Your task to perform on an android device: When is my next meeting? Image 0: 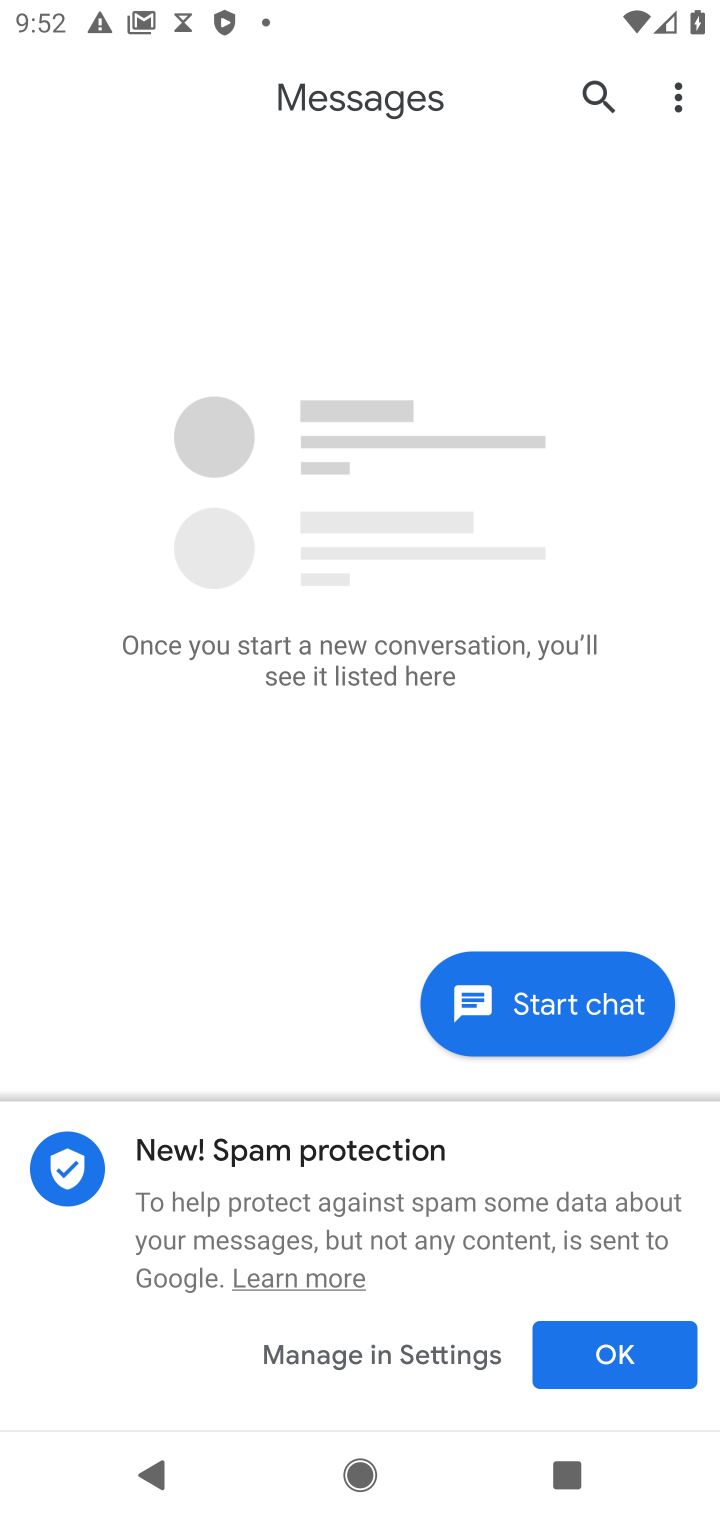
Step 0: press home button
Your task to perform on an android device: When is my next meeting? Image 1: 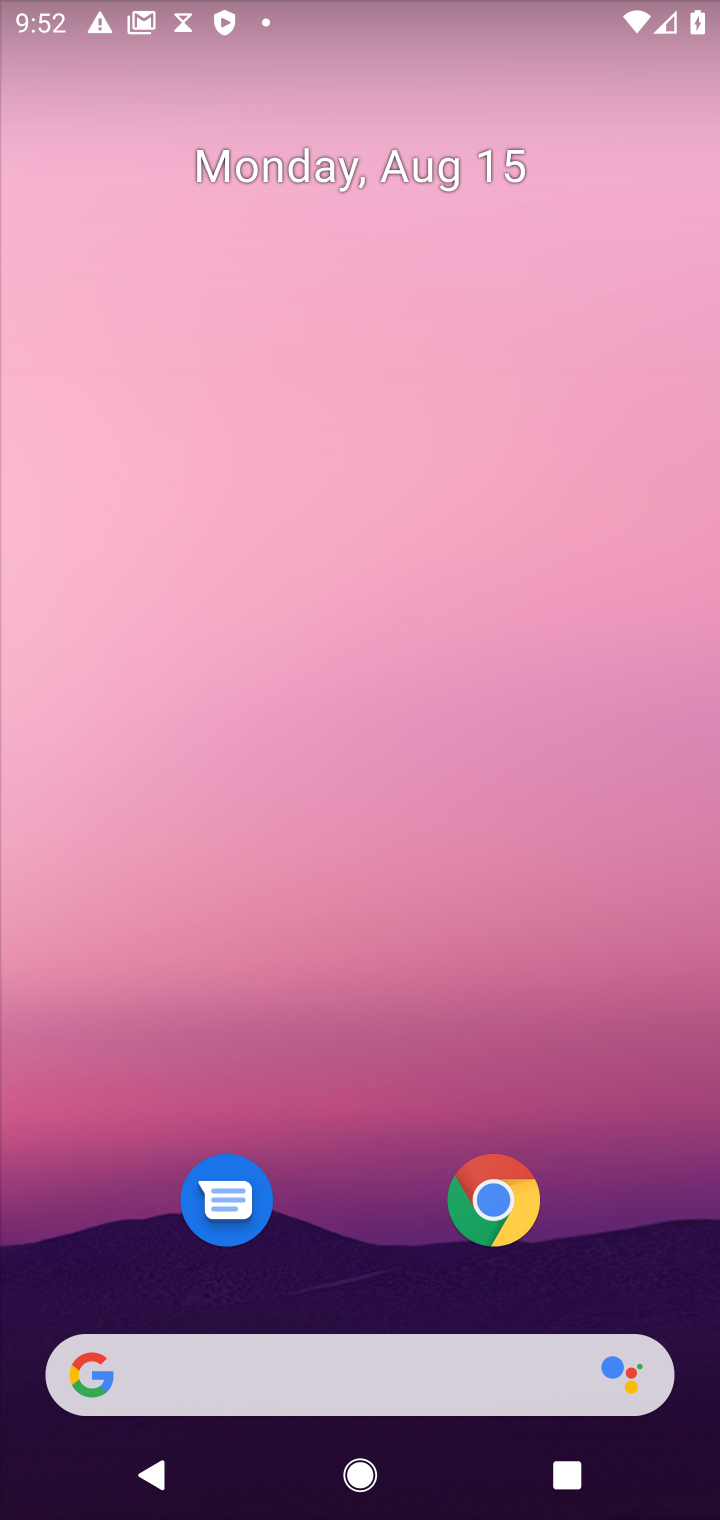
Step 1: drag from (314, 1025) to (296, 369)
Your task to perform on an android device: When is my next meeting? Image 2: 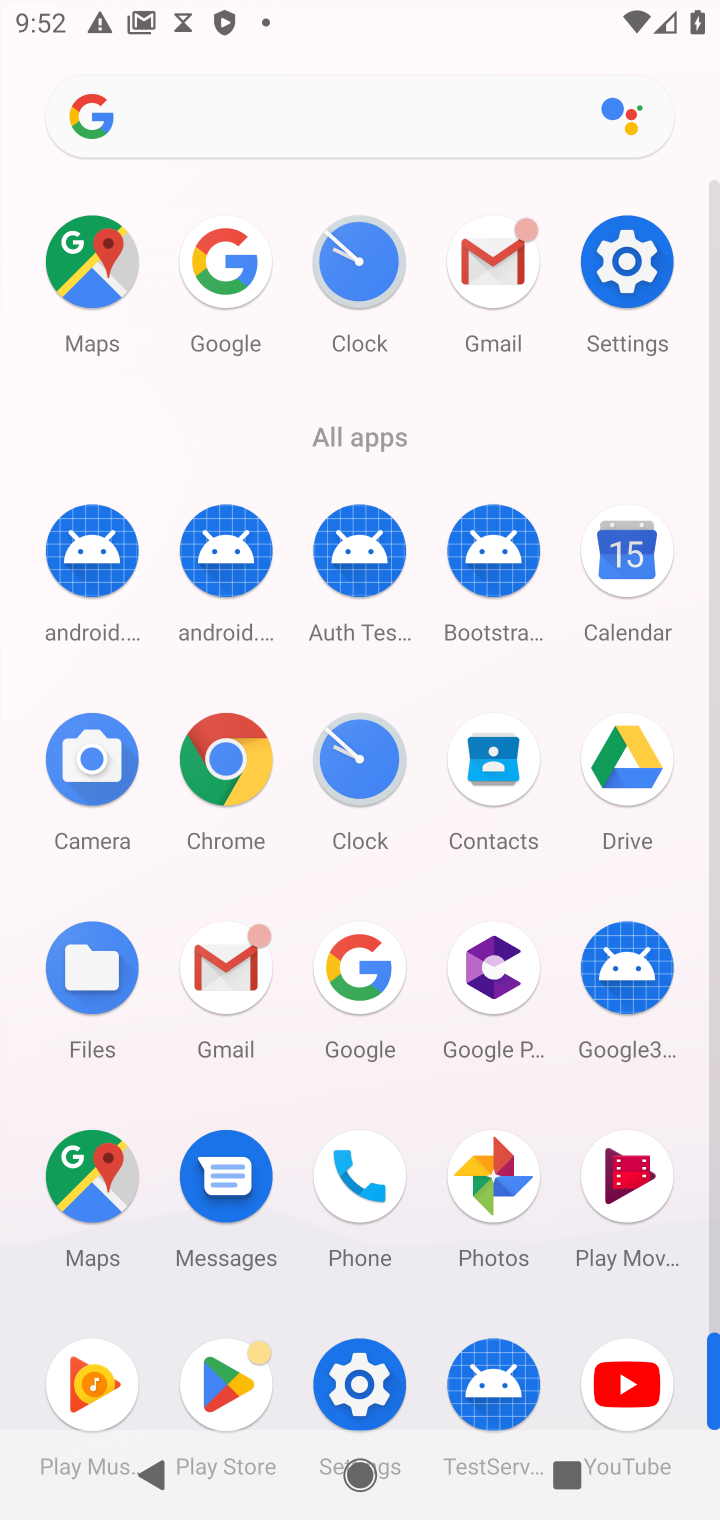
Step 2: click (606, 578)
Your task to perform on an android device: When is my next meeting? Image 3: 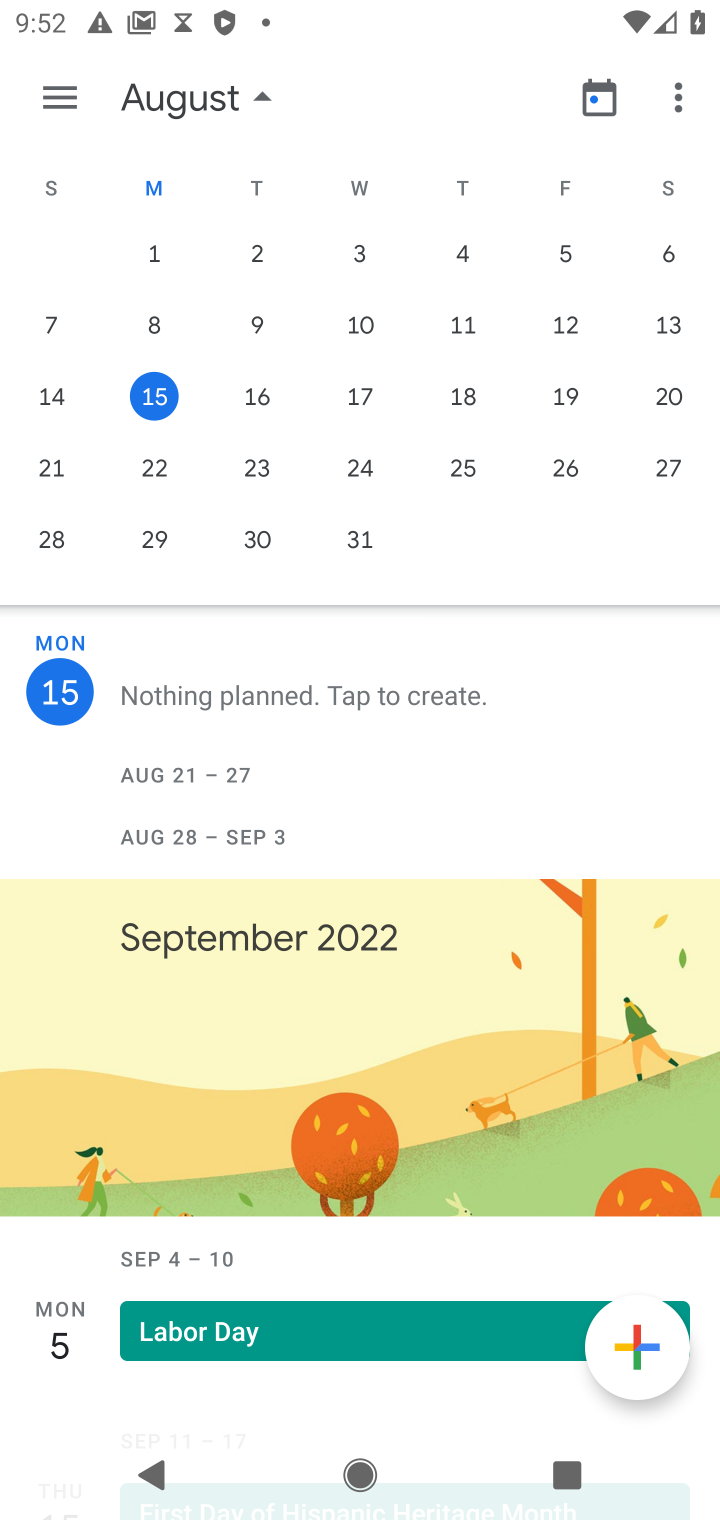
Step 3: click (275, 399)
Your task to perform on an android device: When is my next meeting? Image 4: 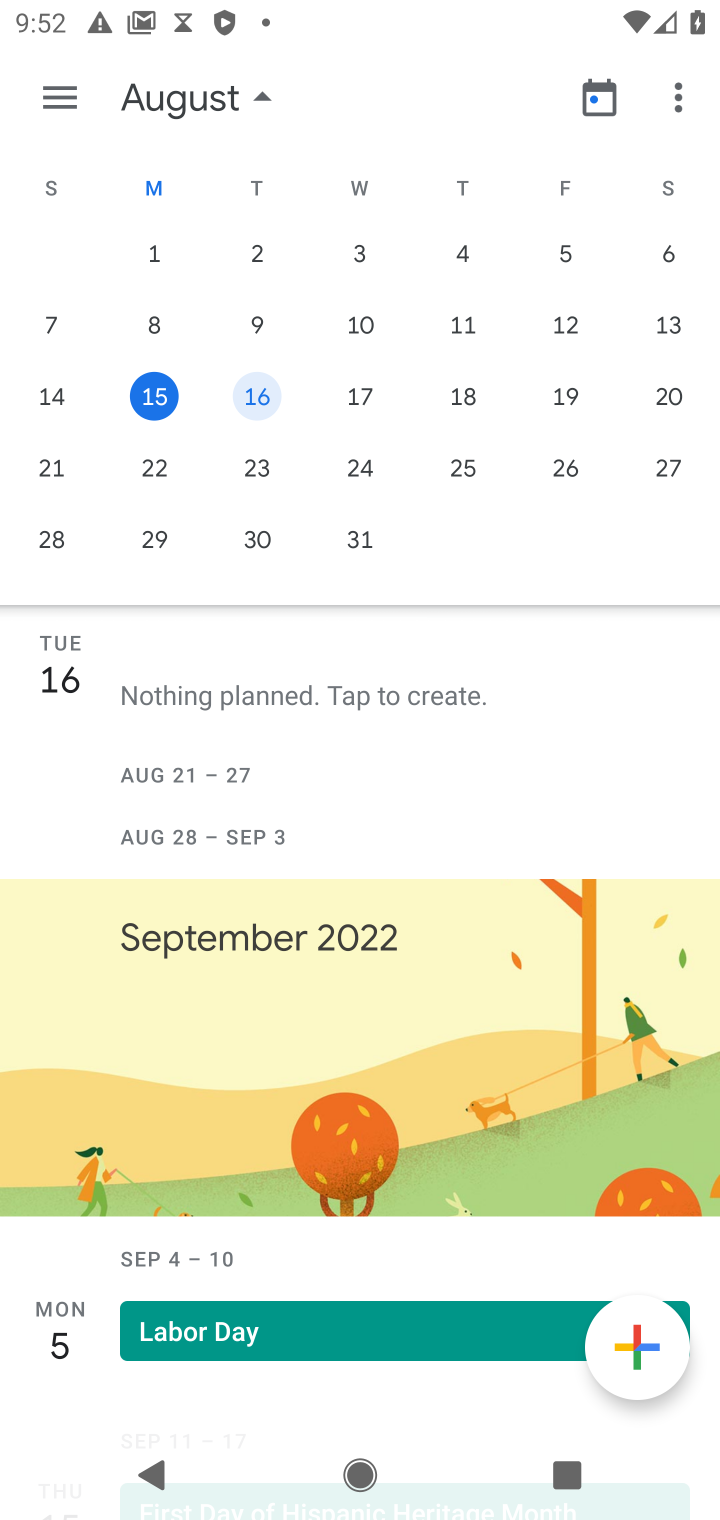
Step 4: click (335, 399)
Your task to perform on an android device: When is my next meeting? Image 5: 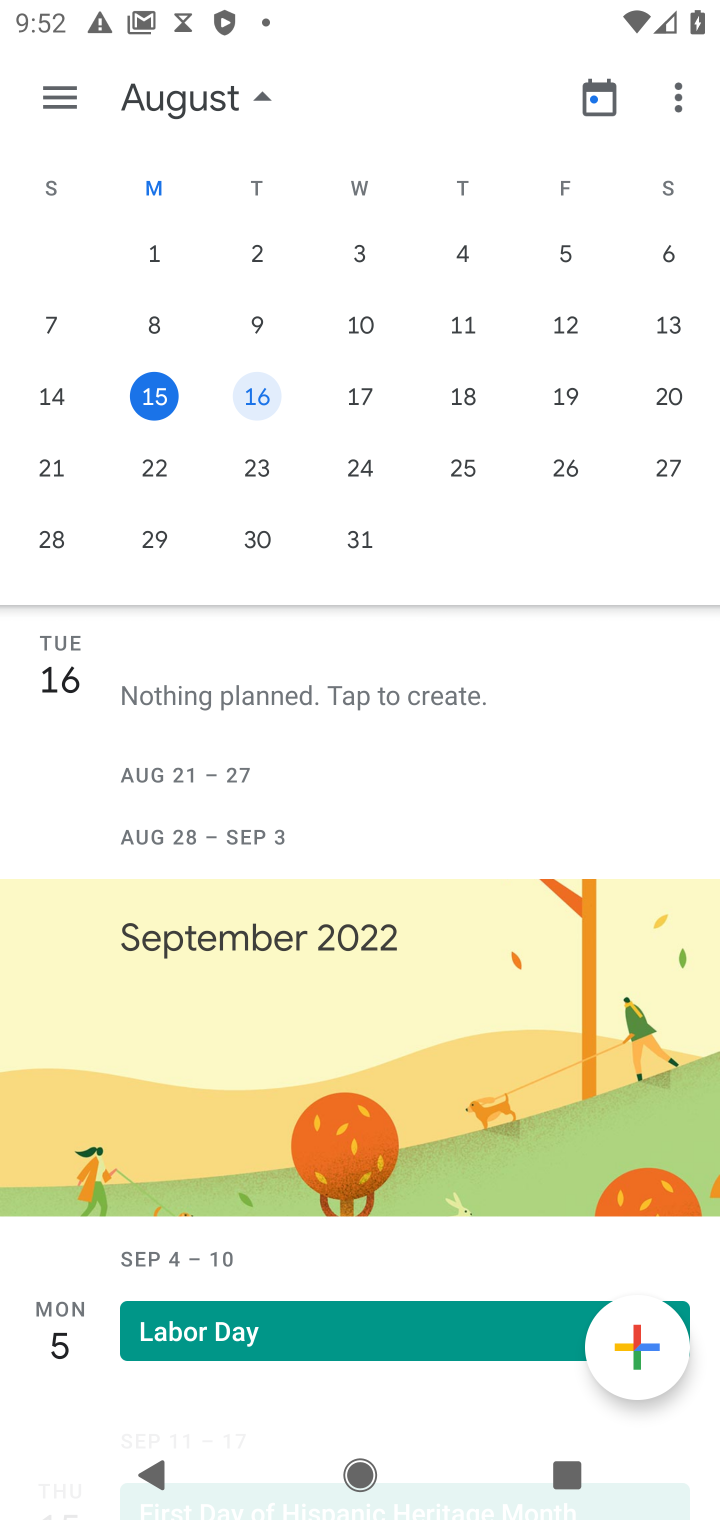
Step 5: click (452, 391)
Your task to perform on an android device: When is my next meeting? Image 6: 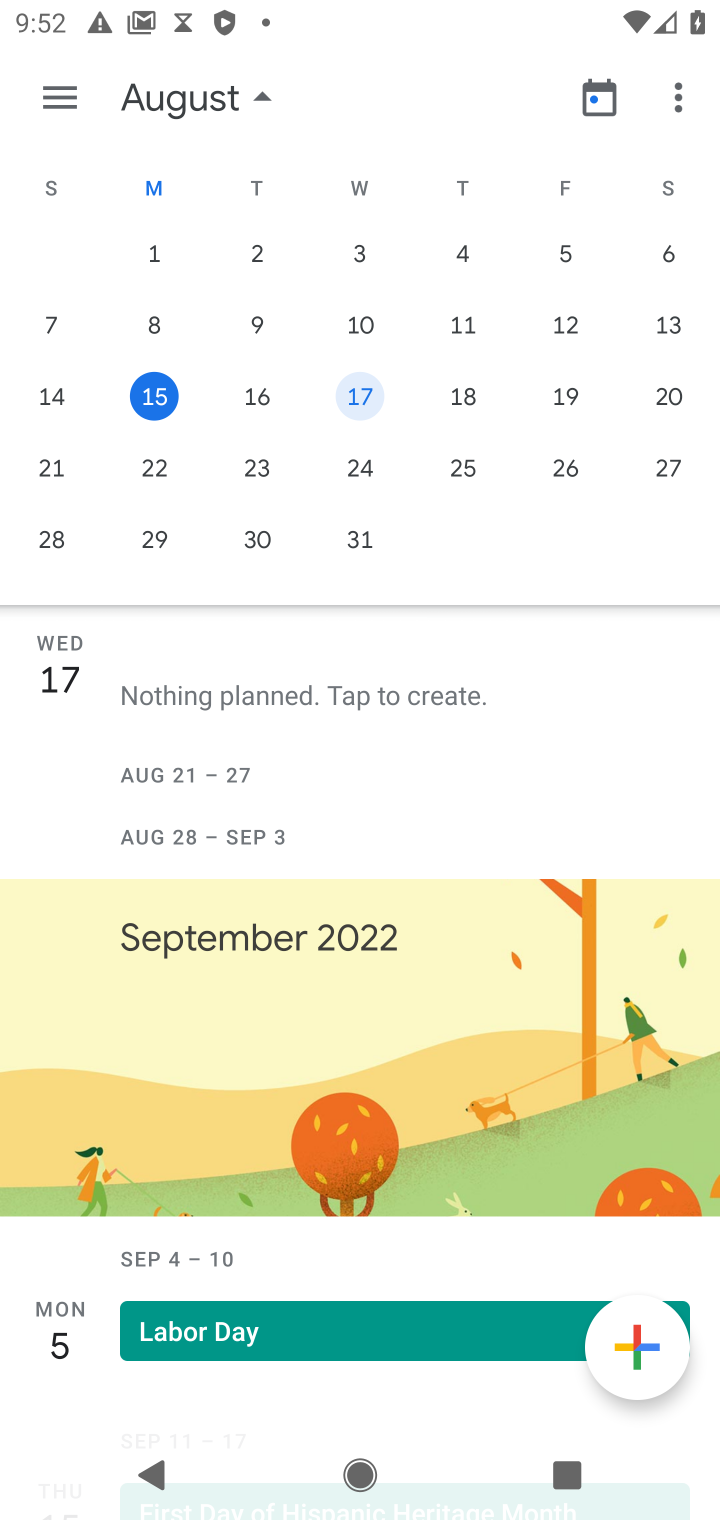
Step 6: click (557, 416)
Your task to perform on an android device: When is my next meeting? Image 7: 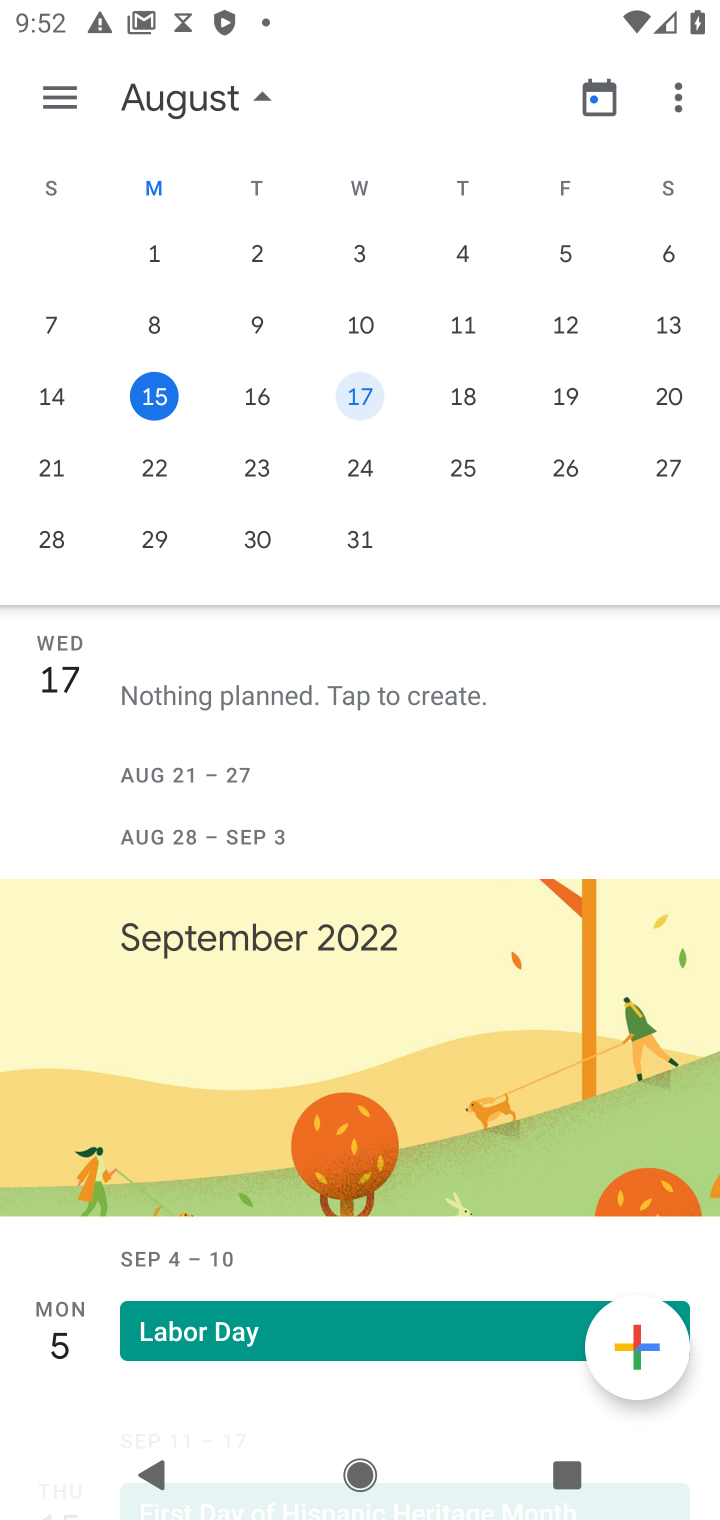
Step 7: click (657, 399)
Your task to perform on an android device: When is my next meeting? Image 8: 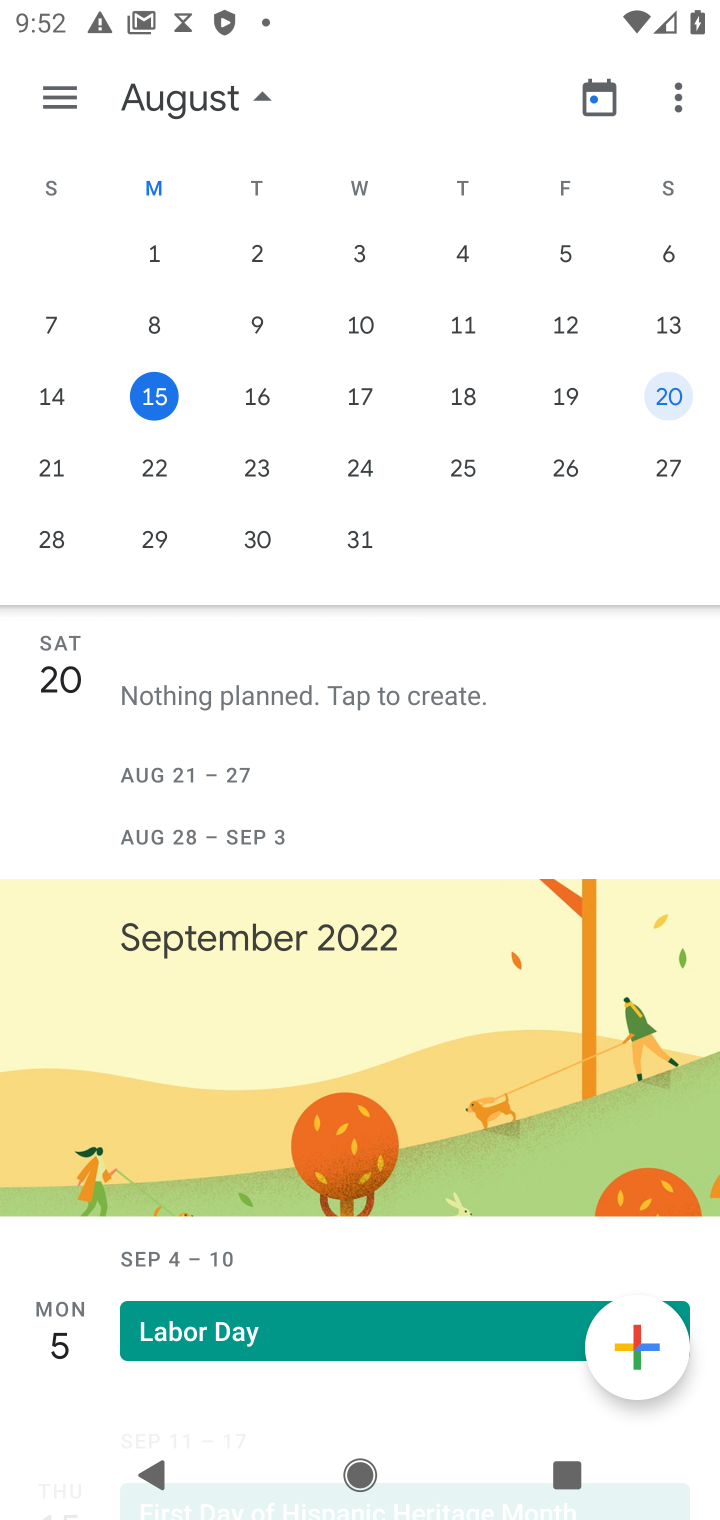
Step 8: click (38, 484)
Your task to perform on an android device: When is my next meeting? Image 9: 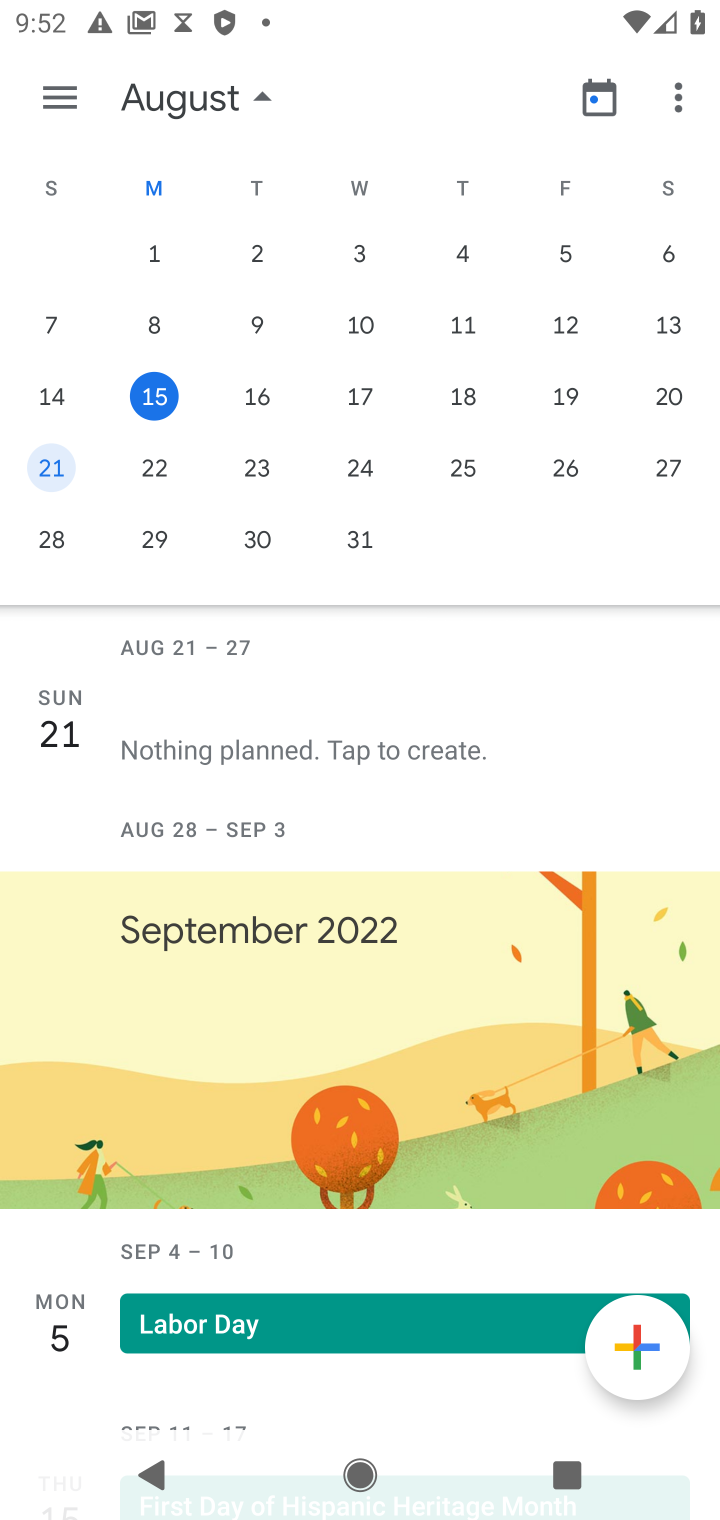
Step 9: task complete